Your task to perform on an android device: Go to settings Image 0: 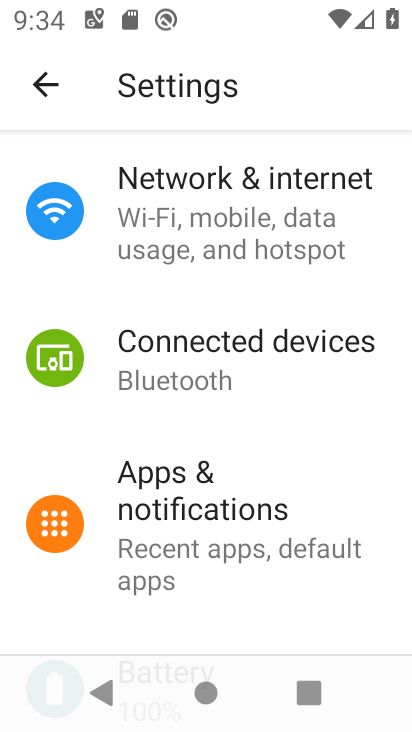
Step 0: drag from (301, 467) to (362, 185)
Your task to perform on an android device: Go to settings Image 1: 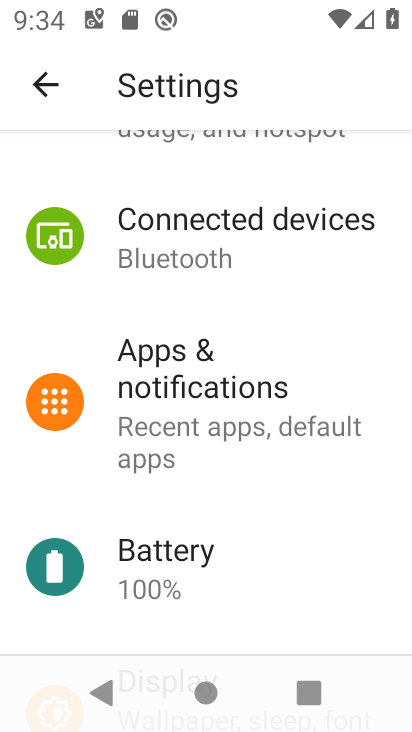
Step 1: task complete